Your task to perform on an android device: Open wifi settings Image 0: 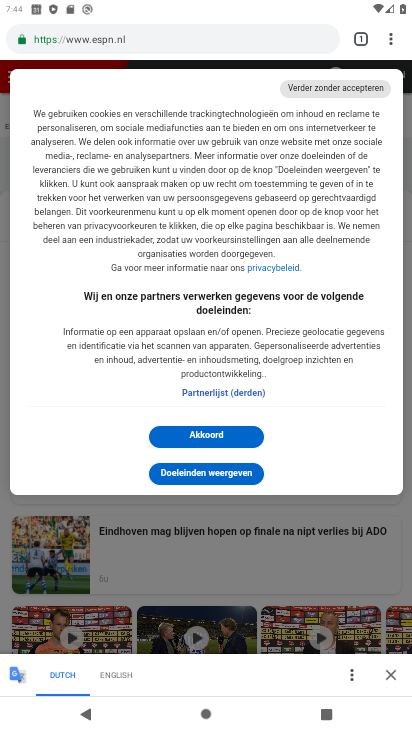
Step 0: press home button
Your task to perform on an android device: Open wifi settings Image 1: 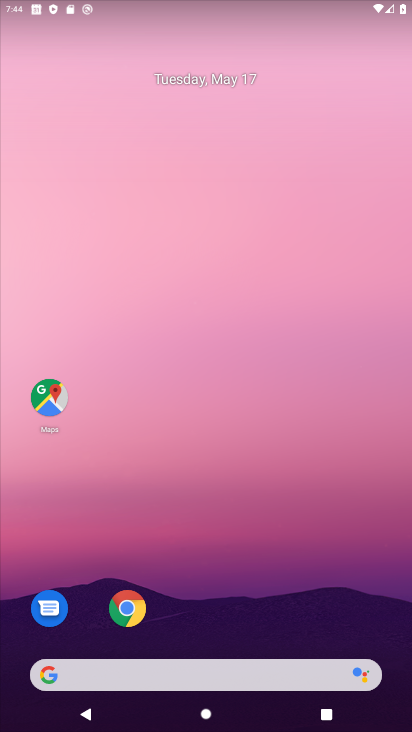
Step 1: drag from (221, 619) to (326, 0)
Your task to perform on an android device: Open wifi settings Image 2: 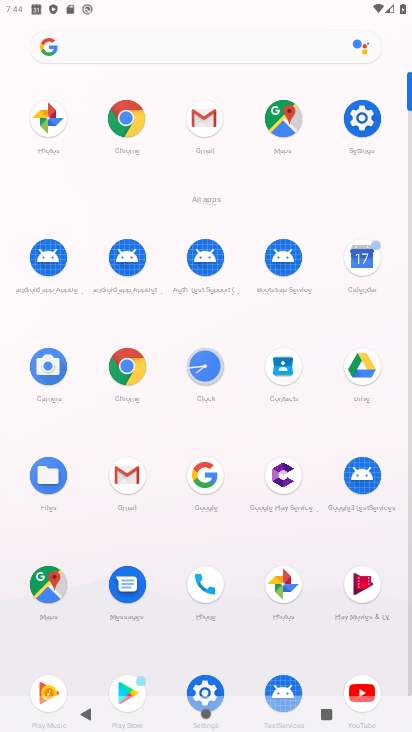
Step 2: click (371, 122)
Your task to perform on an android device: Open wifi settings Image 3: 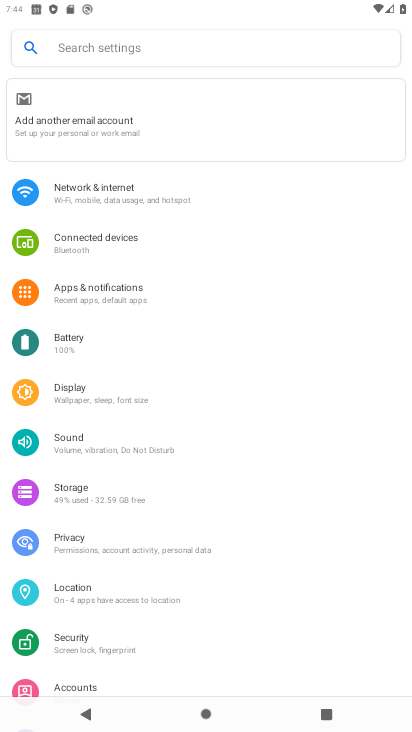
Step 3: click (161, 200)
Your task to perform on an android device: Open wifi settings Image 4: 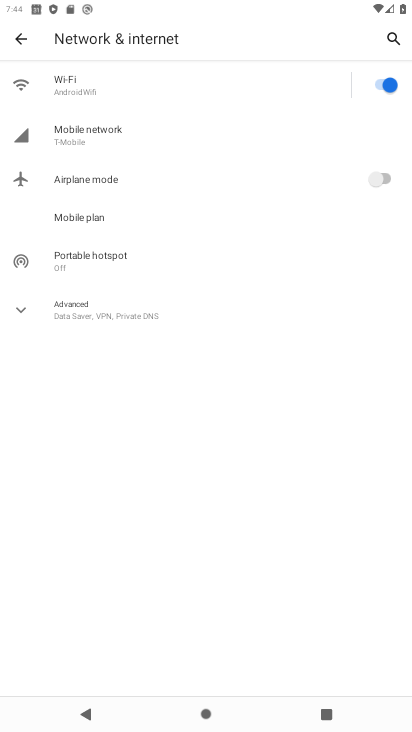
Step 4: click (114, 91)
Your task to perform on an android device: Open wifi settings Image 5: 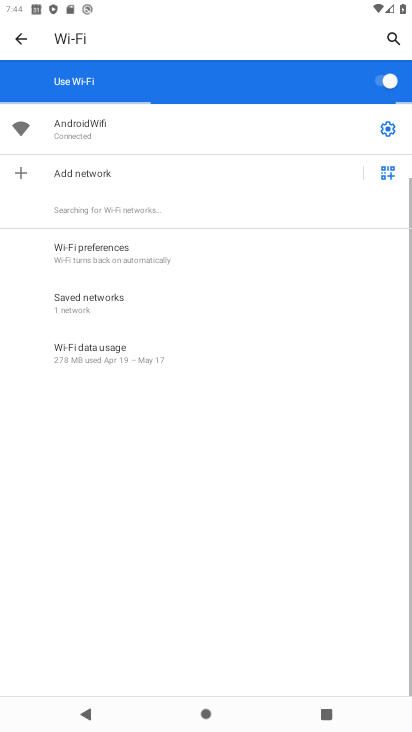
Step 5: task complete